Your task to perform on an android device: What's the weather today? Image 0: 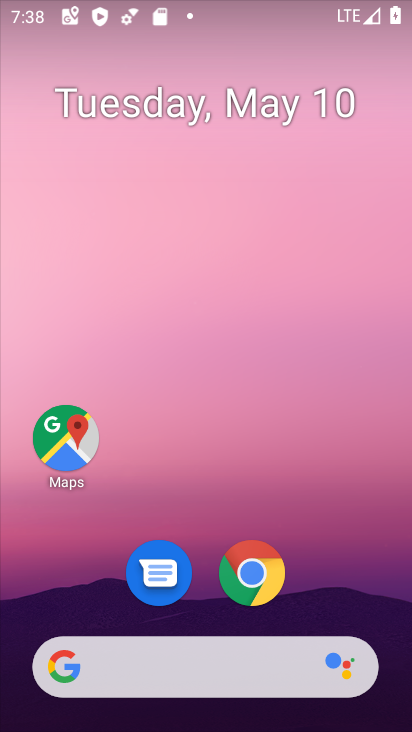
Step 0: drag from (29, 198) to (397, 211)
Your task to perform on an android device: What's the weather today? Image 1: 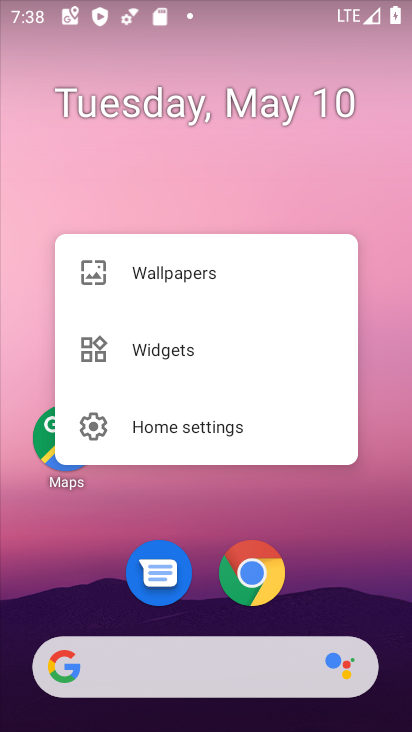
Step 1: drag from (9, 193) to (401, 222)
Your task to perform on an android device: What's the weather today? Image 2: 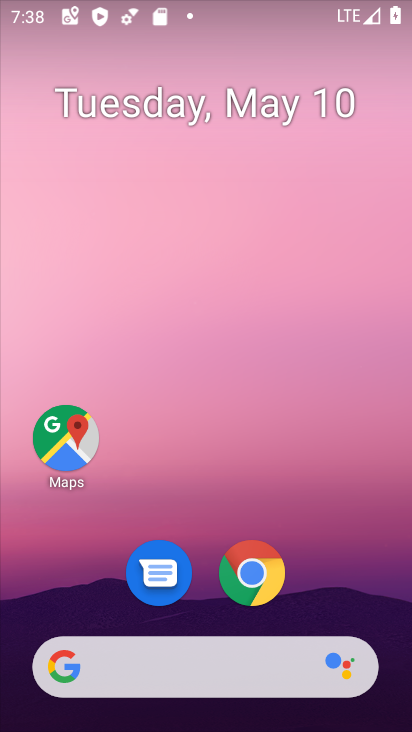
Step 2: drag from (0, 216) to (408, 121)
Your task to perform on an android device: What's the weather today? Image 3: 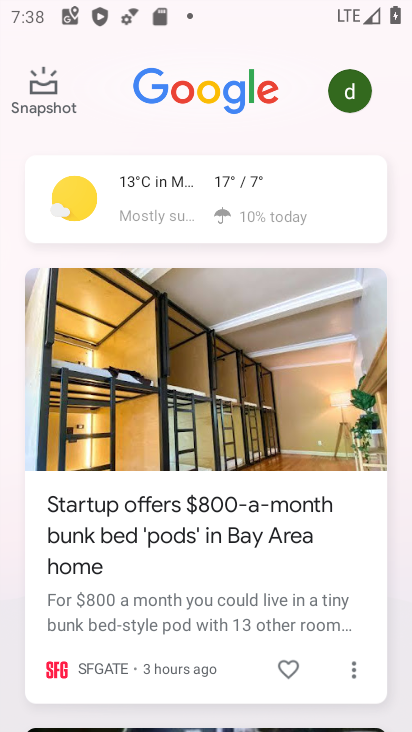
Step 3: click (255, 178)
Your task to perform on an android device: What's the weather today? Image 4: 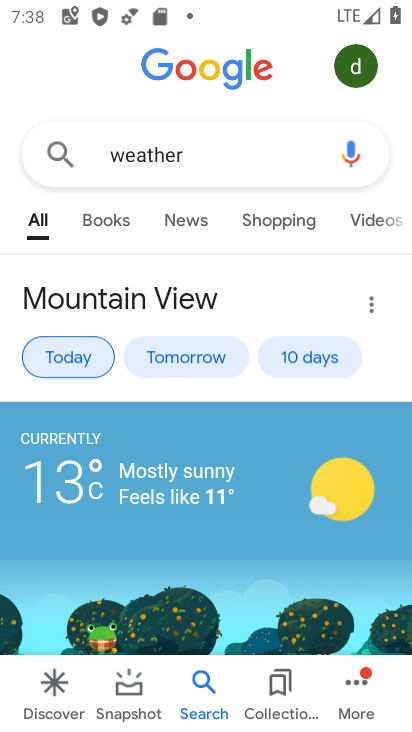
Step 4: task complete